Your task to perform on an android device: Open wifi settings Image 0: 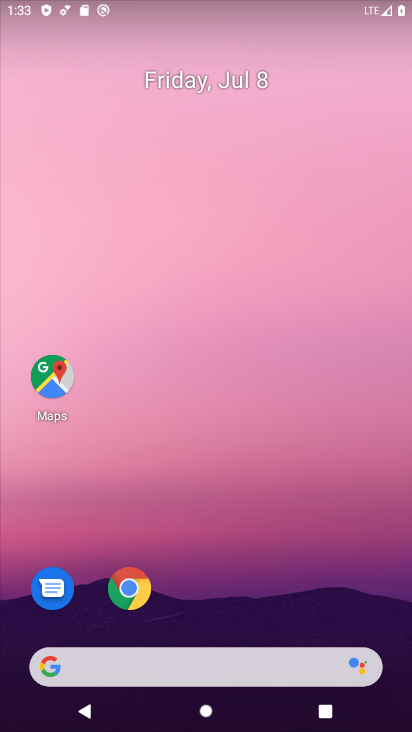
Step 0: press home button
Your task to perform on an android device: Open wifi settings Image 1: 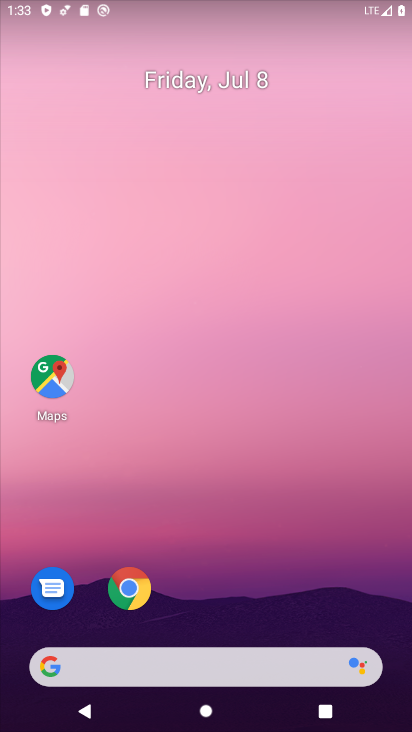
Step 1: drag from (238, 528) to (406, 445)
Your task to perform on an android device: Open wifi settings Image 2: 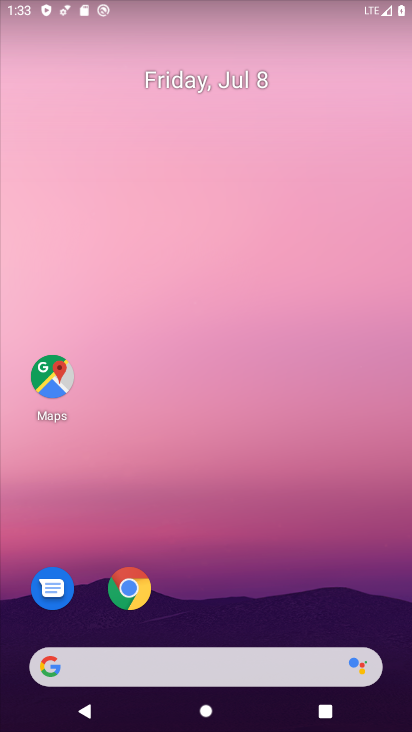
Step 2: drag from (267, 546) to (307, 14)
Your task to perform on an android device: Open wifi settings Image 3: 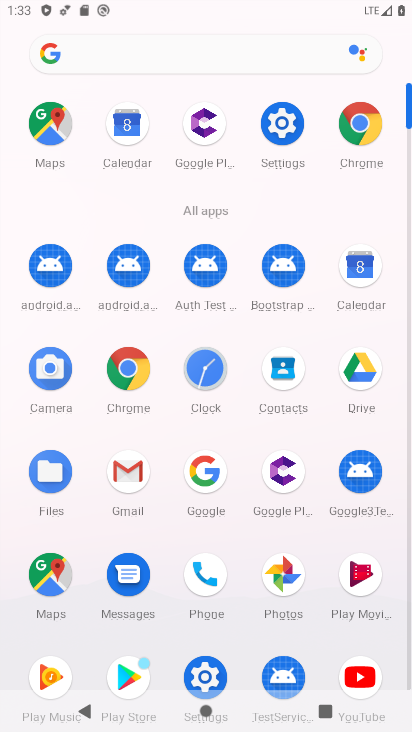
Step 3: click (283, 125)
Your task to perform on an android device: Open wifi settings Image 4: 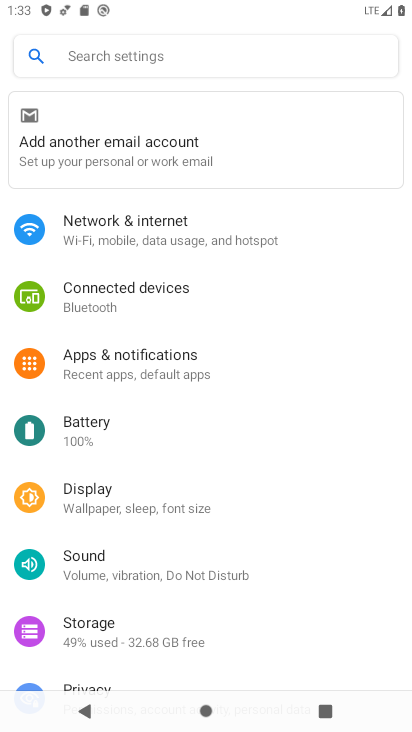
Step 4: click (152, 222)
Your task to perform on an android device: Open wifi settings Image 5: 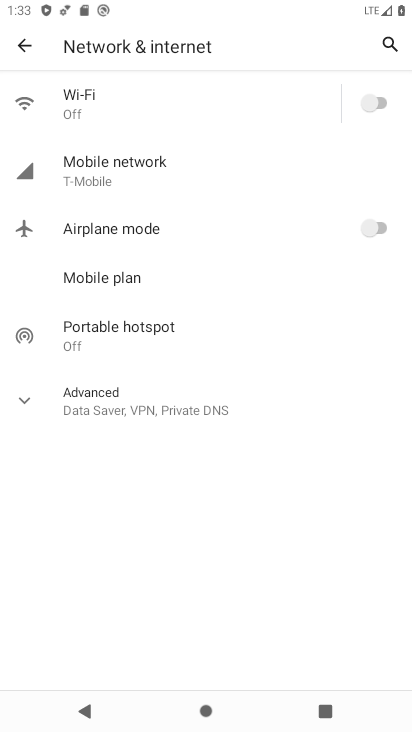
Step 5: click (106, 107)
Your task to perform on an android device: Open wifi settings Image 6: 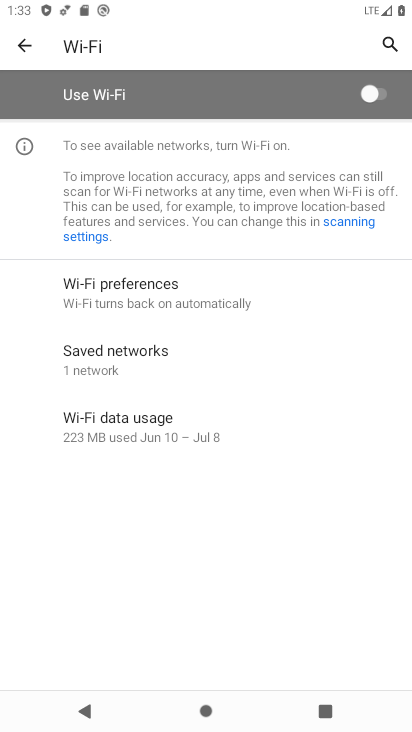
Step 6: task complete